Your task to perform on an android device: search for starred emails in the gmail app Image 0: 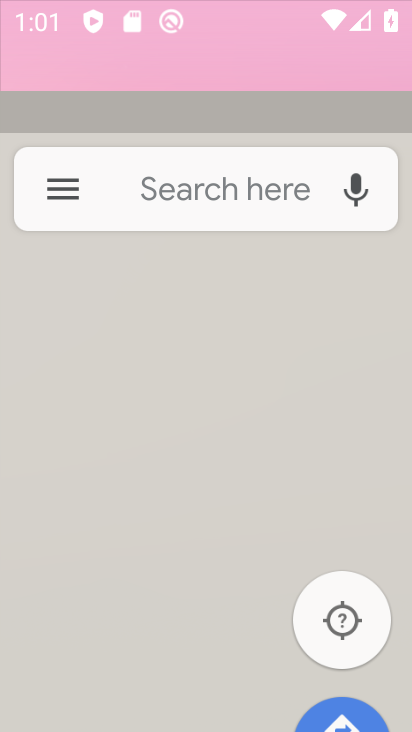
Step 0: drag from (228, 281) to (200, 182)
Your task to perform on an android device: search for starred emails in the gmail app Image 1: 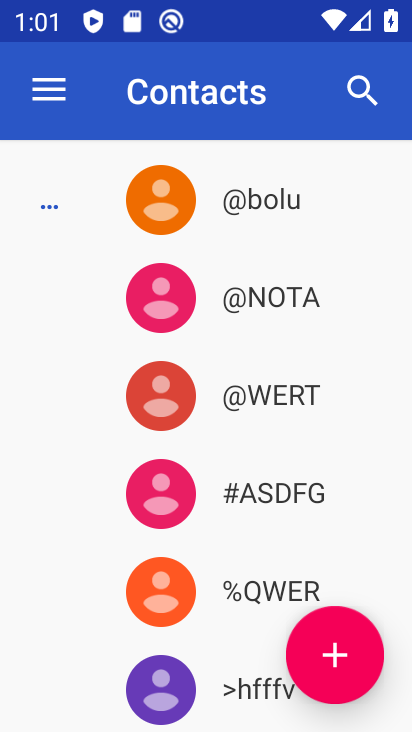
Step 1: press home button
Your task to perform on an android device: search for starred emails in the gmail app Image 2: 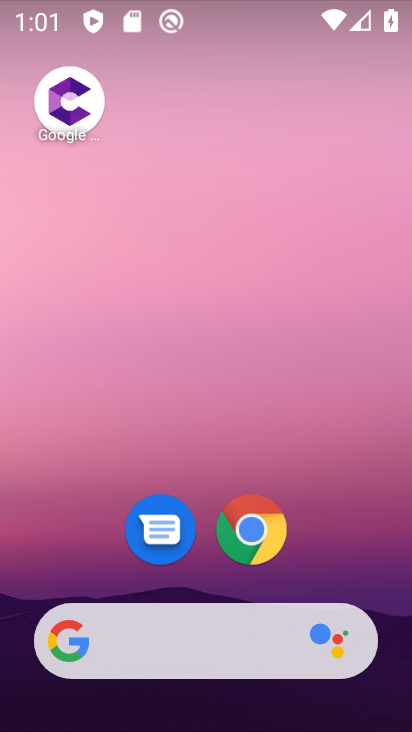
Step 2: drag from (197, 554) to (277, 196)
Your task to perform on an android device: search for starred emails in the gmail app Image 3: 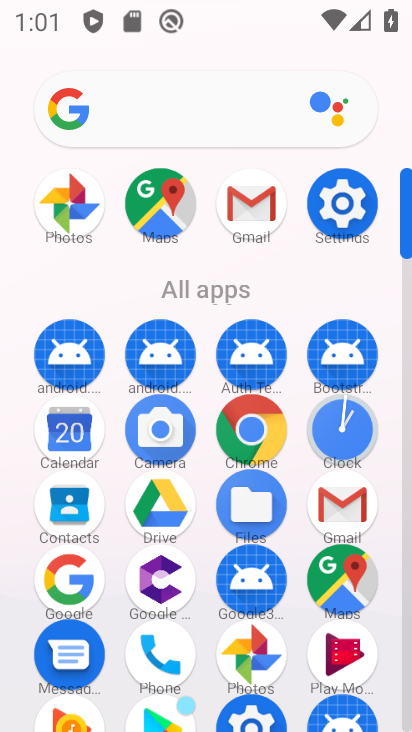
Step 3: click (330, 486)
Your task to perform on an android device: search for starred emails in the gmail app Image 4: 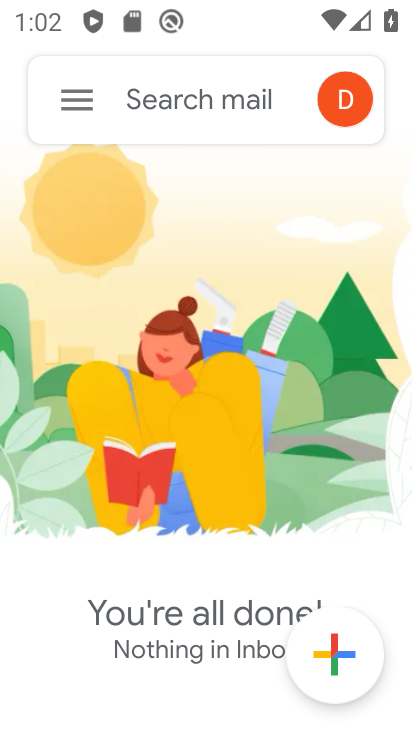
Step 4: click (64, 101)
Your task to perform on an android device: search for starred emails in the gmail app Image 5: 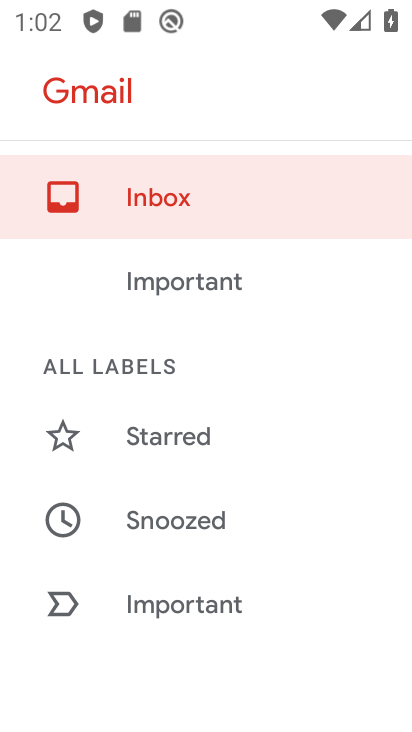
Step 5: task complete